Your task to perform on an android device: turn on notifications settings in the gmail app Image 0: 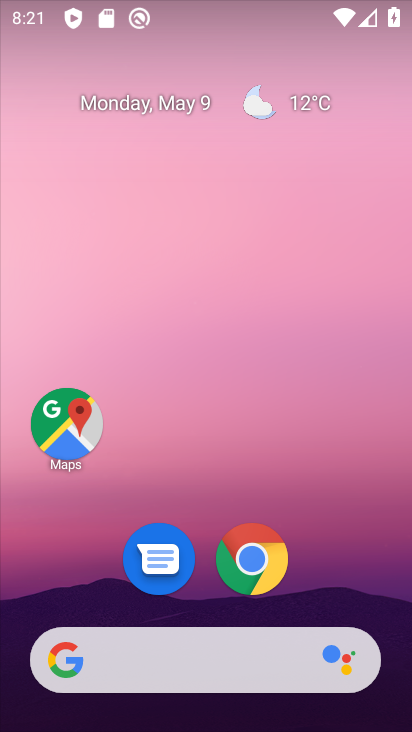
Step 0: drag from (333, 583) to (237, 178)
Your task to perform on an android device: turn on notifications settings in the gmail app Image 1: 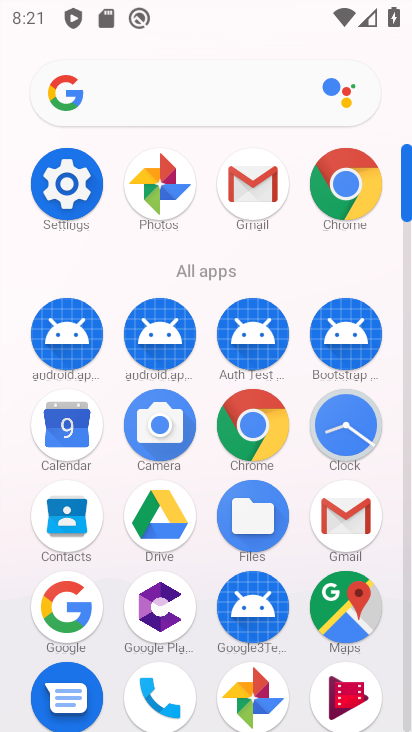
Step 1: click (332, 526)
Your task to perform on an android device: turn on notifications settings in the gmail app Image 2: 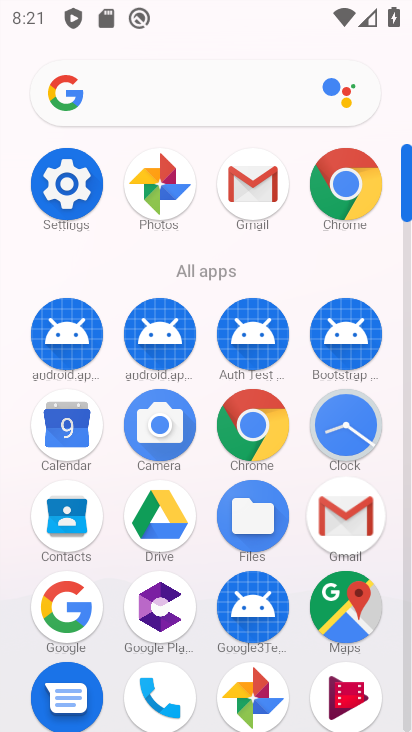
Step 2: click (333, 522)
Your task to perform on an android device: turn on notifications settings in the gmail app Image 3: 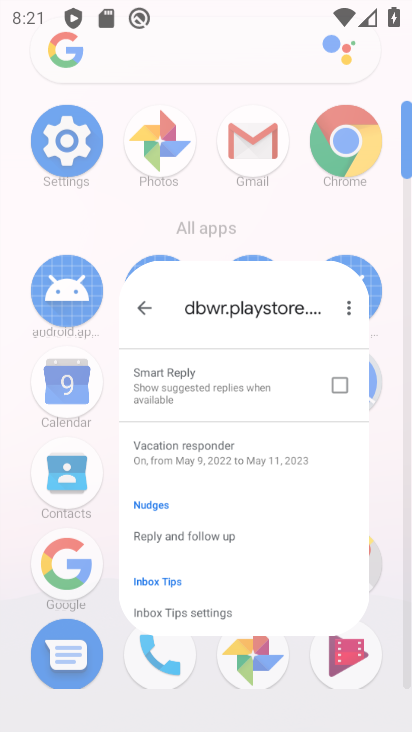
Step 3: click (332, 521)
Your task to perform on an android device: turn on notifications settings in the gmail app Image 4: 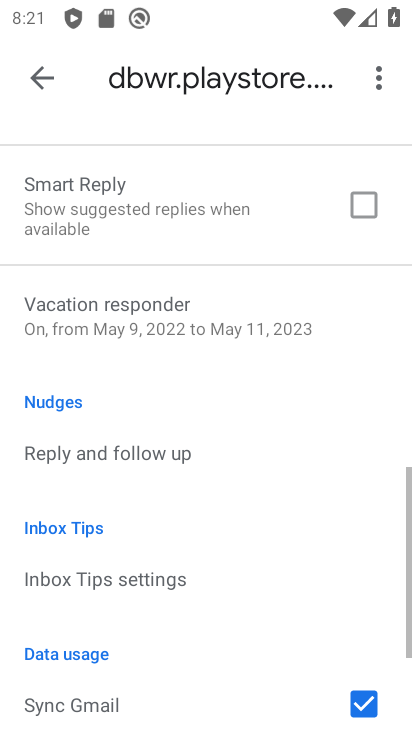
Step 4: click (333, 520)
Your task to perform on an android device: turn on notifications settings in the gmail app Image 5: 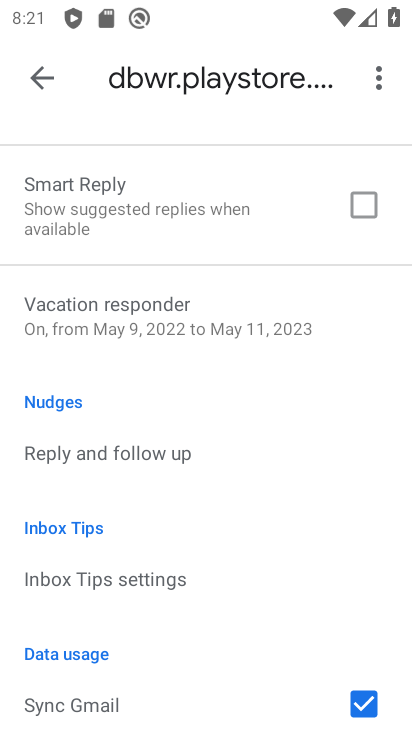
Step 5: click (38, 82)
Your task to perform on an android device: turn on notifications settings in the gmail app Image 6: 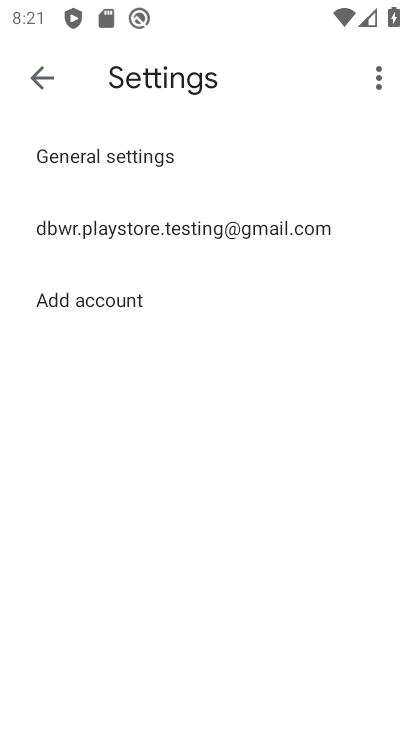
Step 6: click (36, 75)
Your task to perform on an android device: turn on notifications settings in the gmail app Image 7: 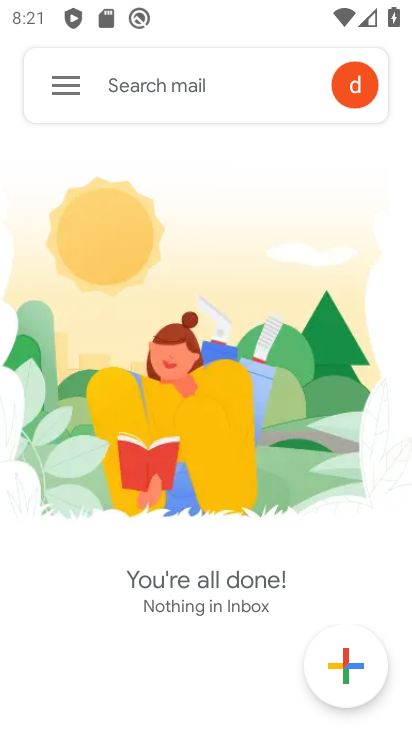
Step 7: click (61, 91)
Your task to perform on an android device: turn on notifications settings in the gmail app Image 8: 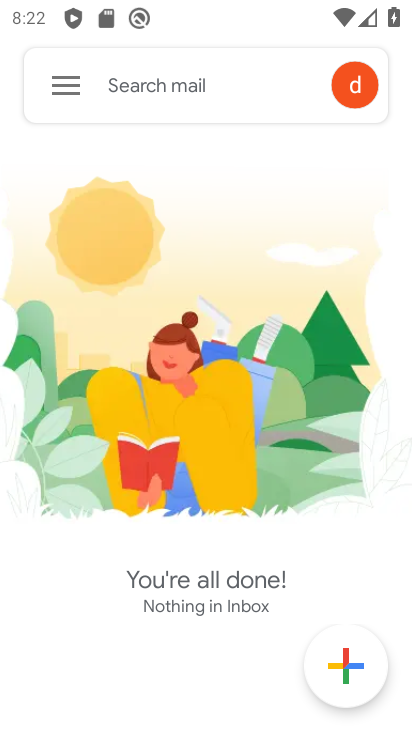
Step 8: click (73, 74)
Your task to perform on an android device: turn on notifications settings in the gmail app Image 9: 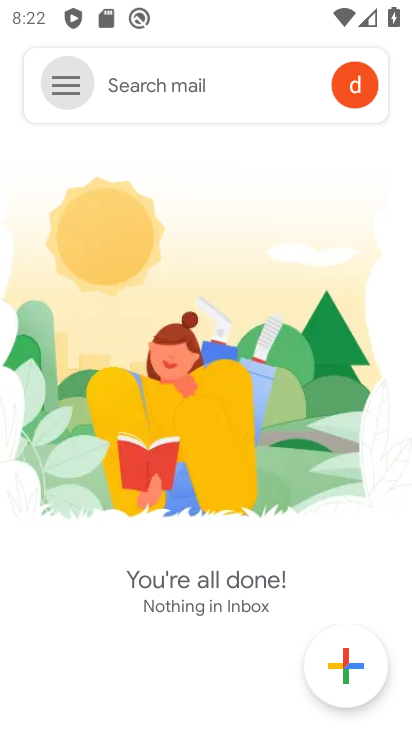
Step 9: click (73, 83)
Your task to perform on an android device: turn on notifications settings in the gmail app Image 10: 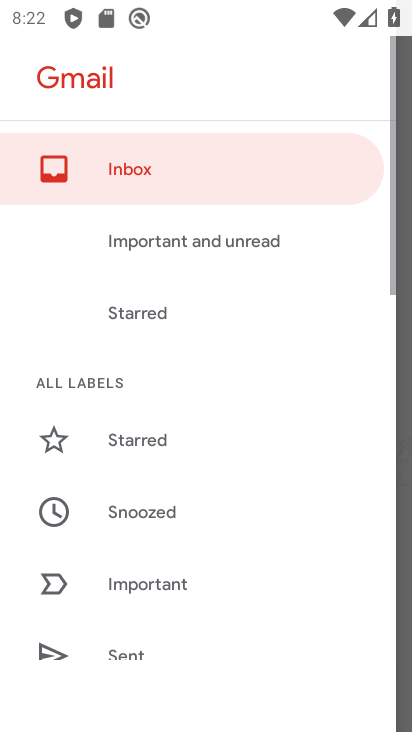
Step 10: click (72, 85)
Your task to perform on an android device: turn on notifications settings in the gmail app Image 11: 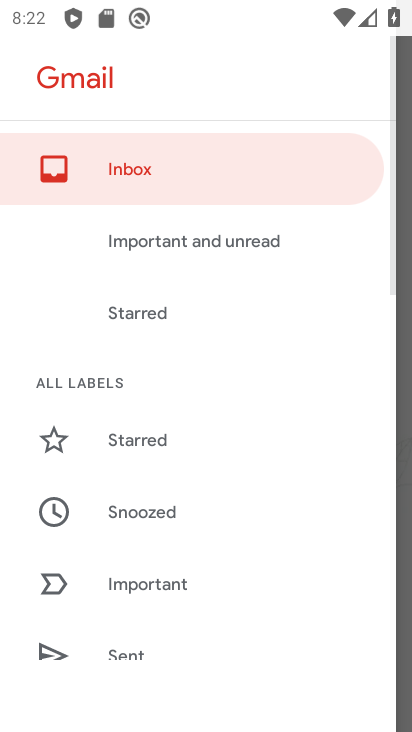
Step 11: drag from (139, 597) to (185, 127)
Your task to perform on an android device: turn on notifications settings in the gmail app Image 12: 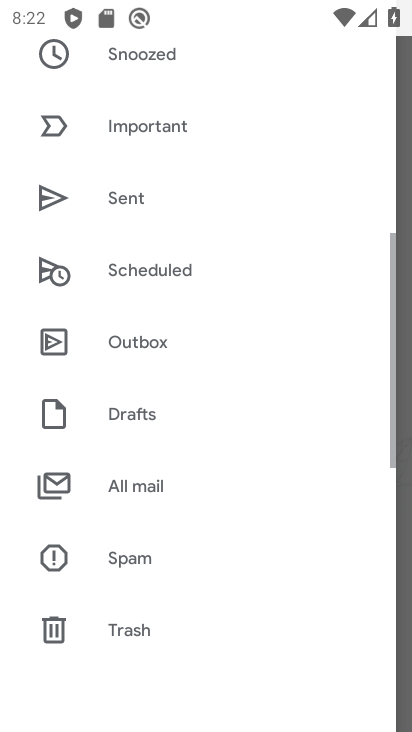
Step 12: drag from (185, 478) to (226, 144)
Your task to perform on an android device: turn on notifications settings in the gmail app Image 13: 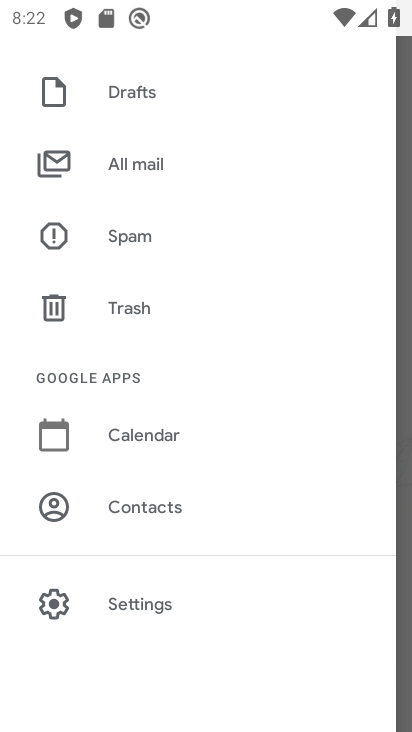
Step 13: click (133, 607)
Your task to perform on an android device: turn on notifications settings in the gmail app Image 14: 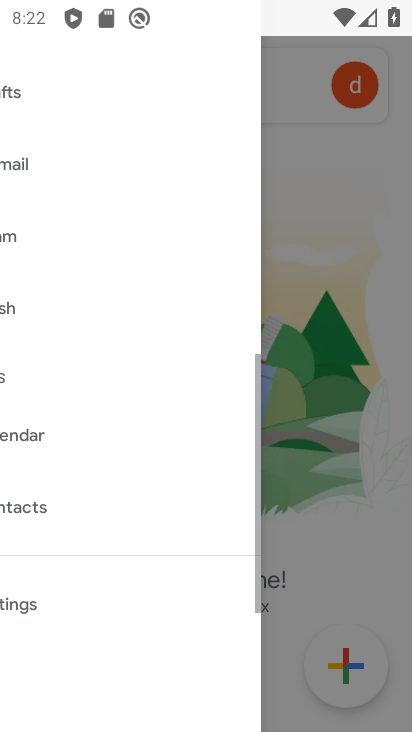
Step 14: click (133, 607)
Your task to perform on an android device: turn on notifications settings in the gmail app Image 15: 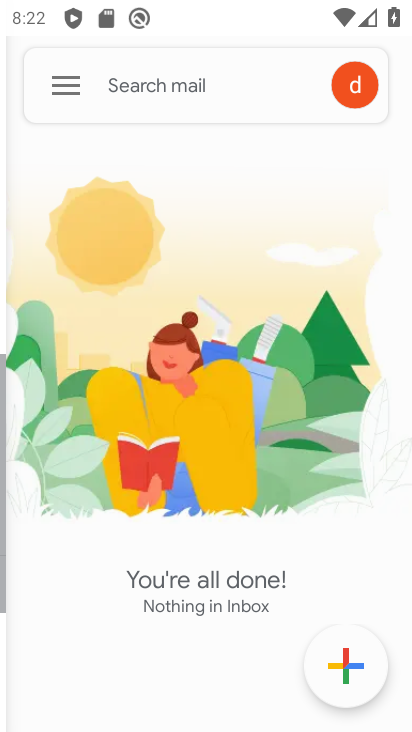
Step 15: click (136, 610)
Your task to perform on an android device: turn on notifications settings in the gmail app Image 16: 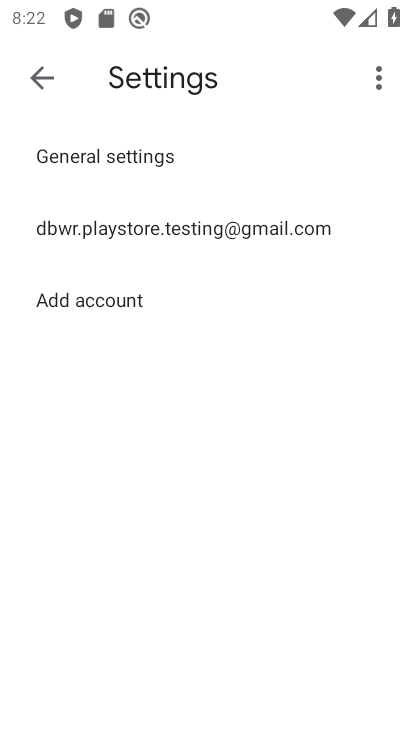
Step 16: click (141, 219)
Your task to perform on an android device: turn on notifications settings in the gmail app Image 17: 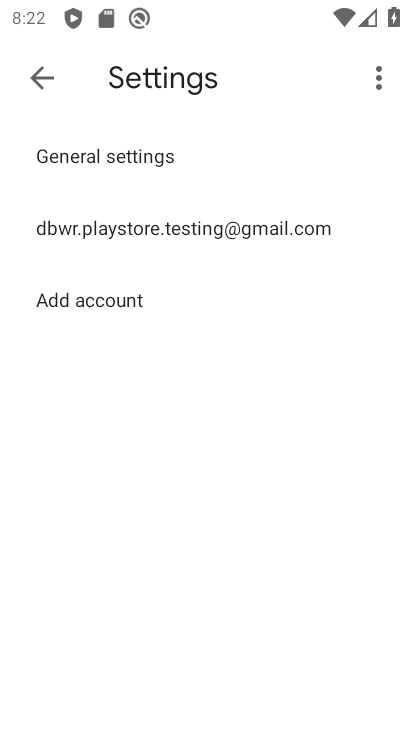
Step 17: click (145, 222)
Your task to perform on an android device: turn on notifications settings in the gmail app Image 18: 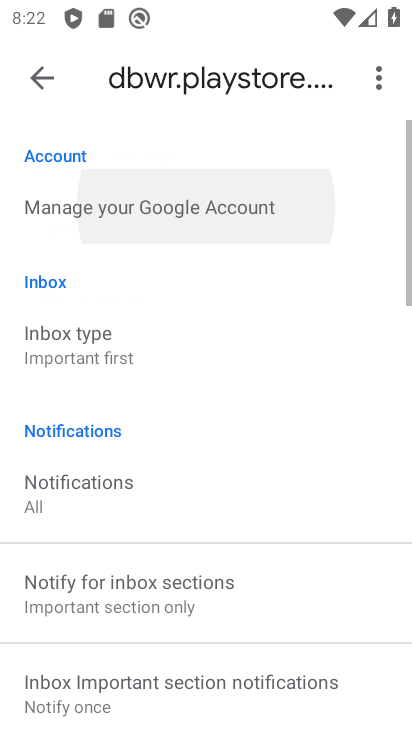
Step 18: click (148, 223)
Your task to perform on an android device: turn on notifications settings in the gmail app Image 19: 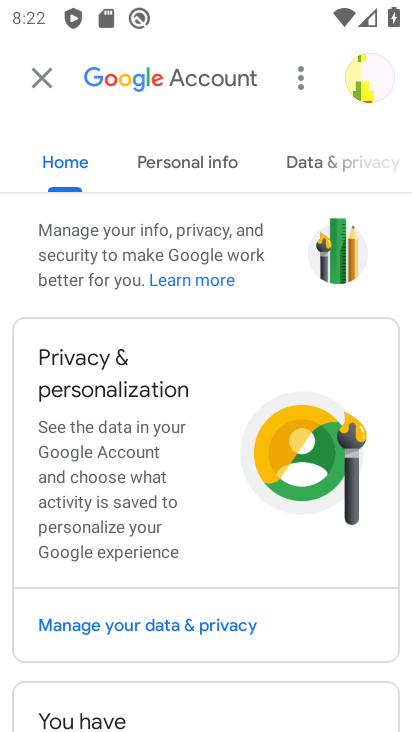
Step 19: click (37, 84)
Your task to perform on an android device: turn on notifications settings in the gmail app Image 20: 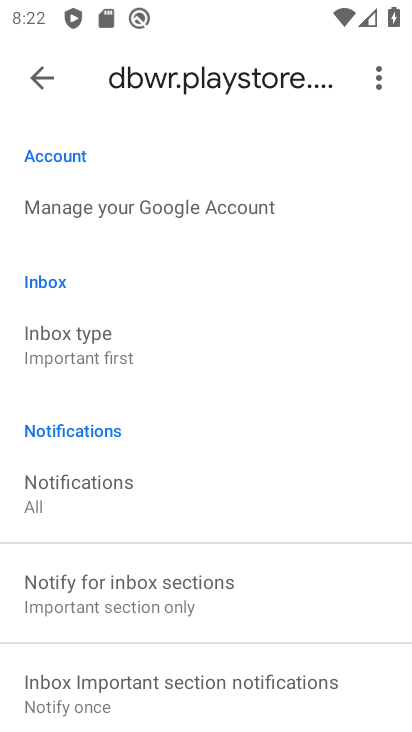
Step 20: click (55, 480)
Your task to perform on an android device: turn on notifications settings in the gmail app Image 21: 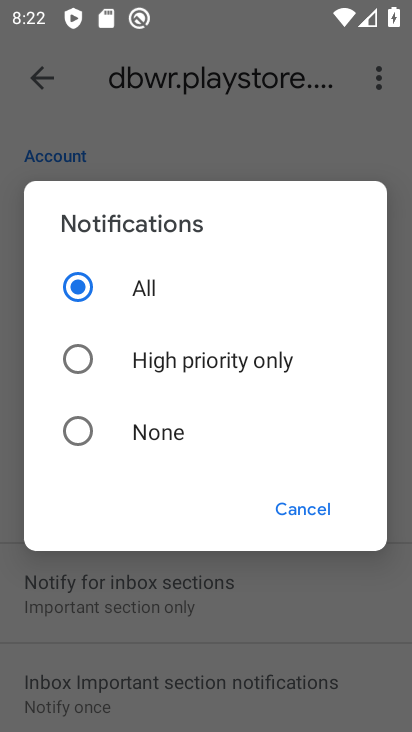
Step 21: click (303, 490)
Your task to perform on an android device: turn on notifications settings in the gmail app Image 22: 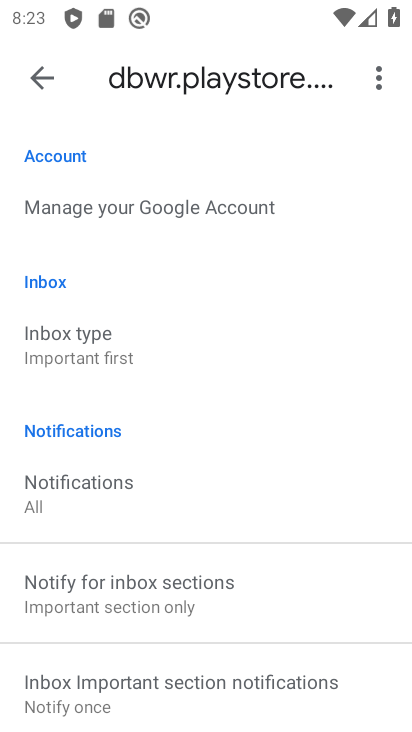
Step 22: task complete